Your task to perform on an android device: open sync settings in chrome Image 0: 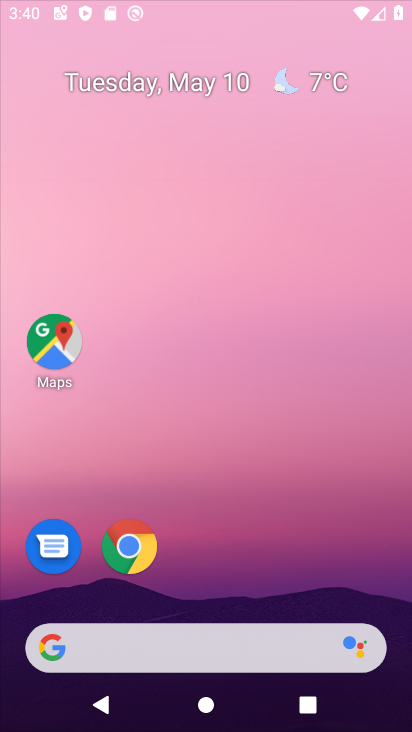
Step 0: click (136, 537)
Your task to perform on an android device: open sync settings in chrome Image 1: 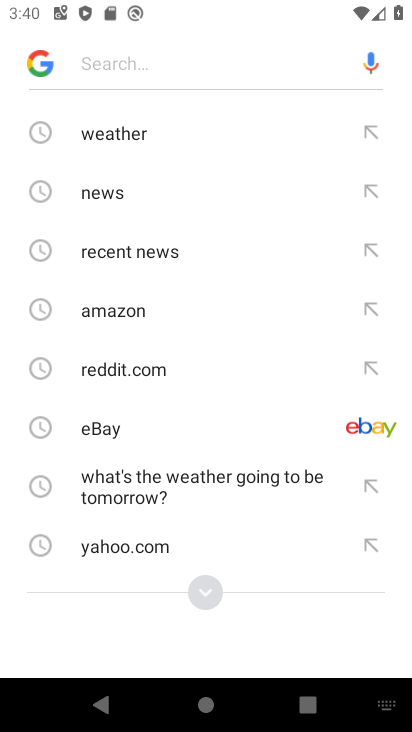
Step 1: press home button
Your task to perform on an android device: open sync settings in chrome Image 2: 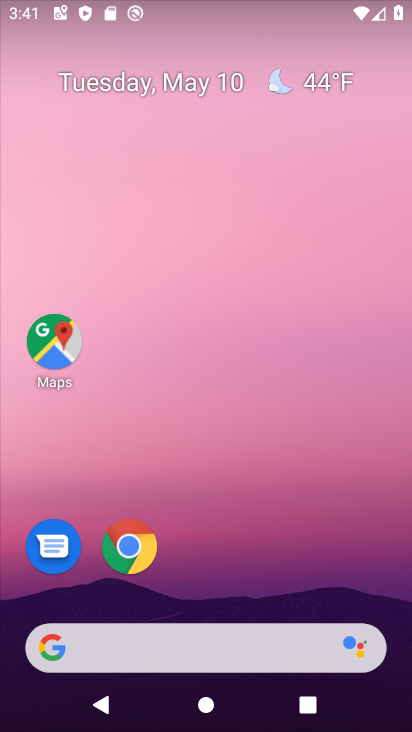
Step 2: click (126, 559)
Your task to perform on an android device: open sync settings in chrome Image 3: 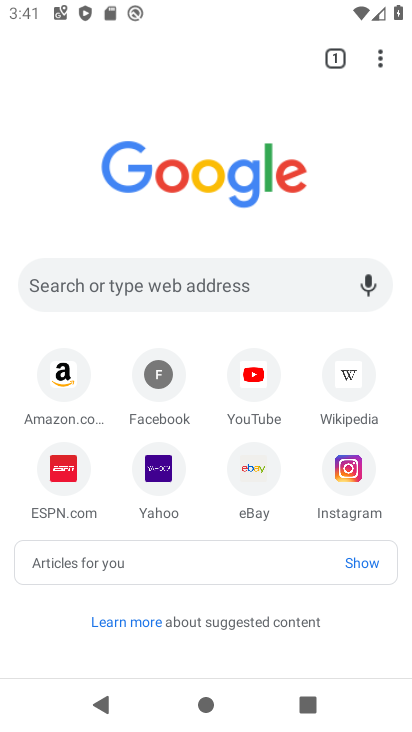
Step 3: click (390, 57)
Your task to perform on an android device: open sync settings in chrome Image 4: 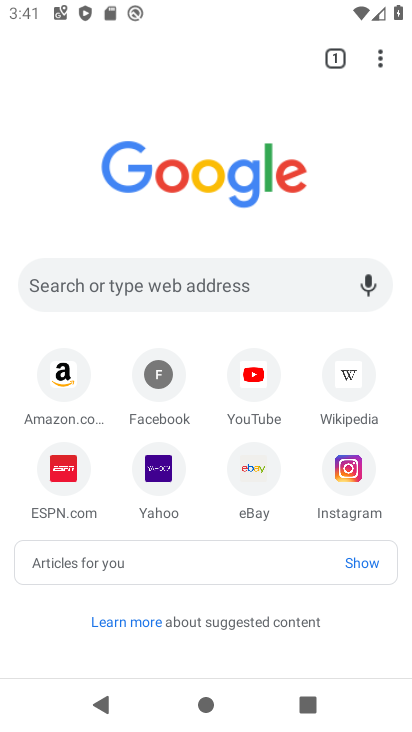
Step 4: drag from (375, 57) to (190, 489)
Your task to perform on an android device: open sync settings in chrome Image 5: 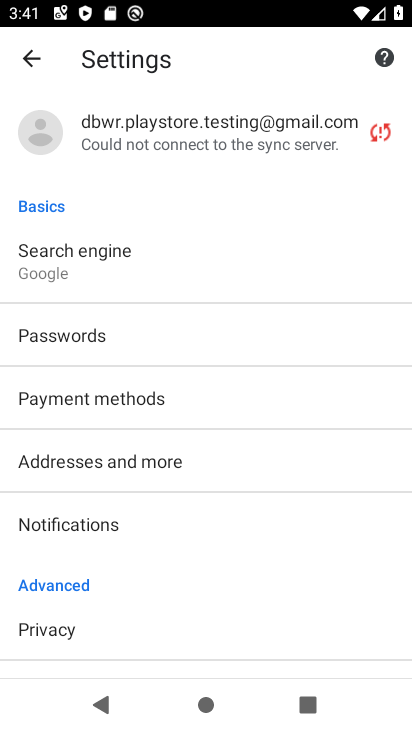
Step 5: click (153, 136)
Your task to perform on an android device: open sync settings in chrome Image 6: 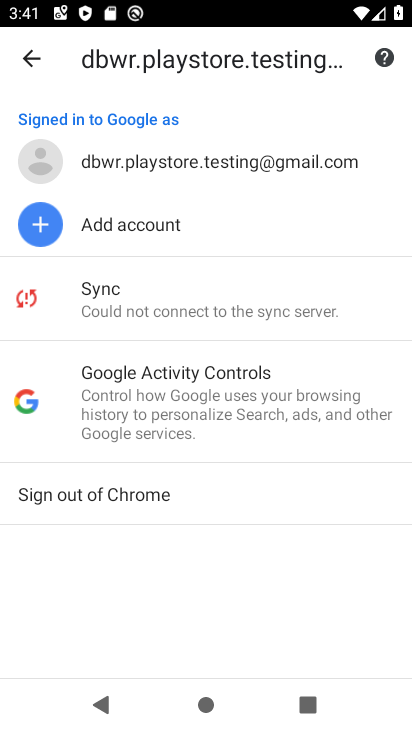
Step 6: task complete